Your task to perform on an android device: change notification settings in the gmail app Image 0: 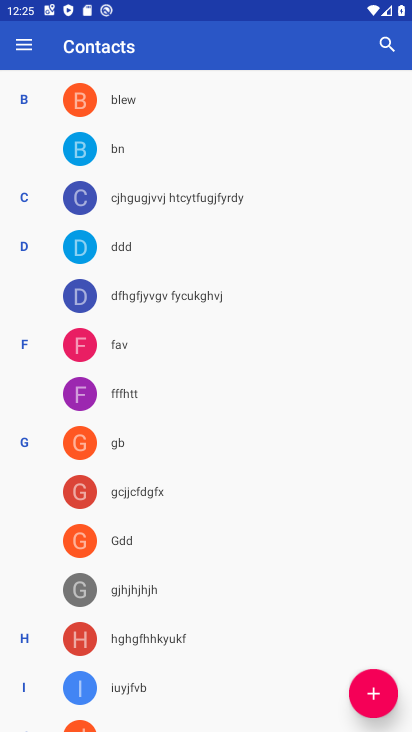
Step 0: press home button
Your task to perform on an android device: change notification settings in the gmail app Image 1: 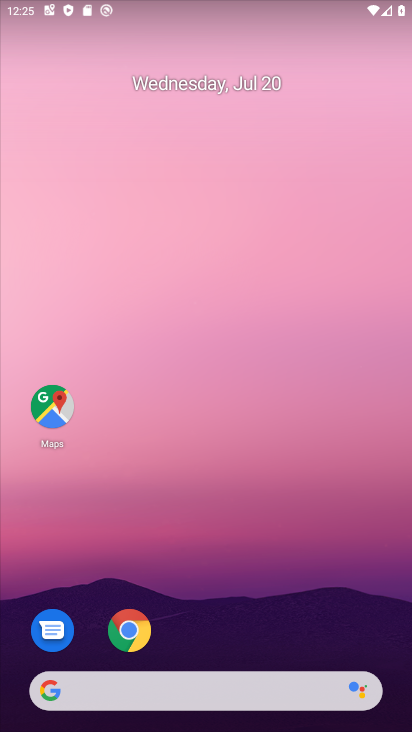
Step 1: drag from (265, 580) to (224, 5)
Your task to perform on an android device: change notification settings in the gmail app Image 2: 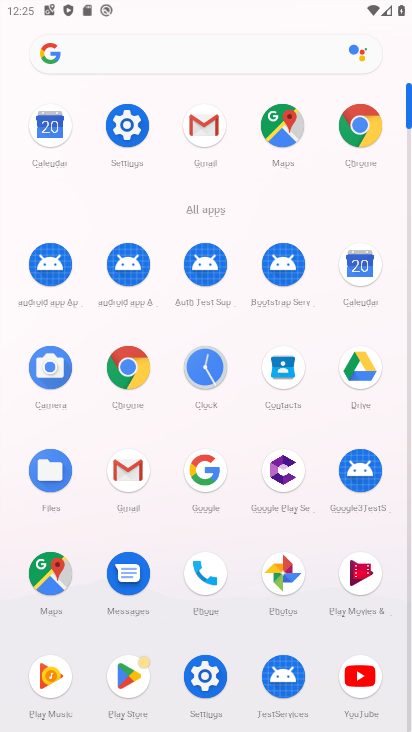
Step 2: click (215, 126)
Your task to perform on an android device: change notification settings in the gmail app Image 3: 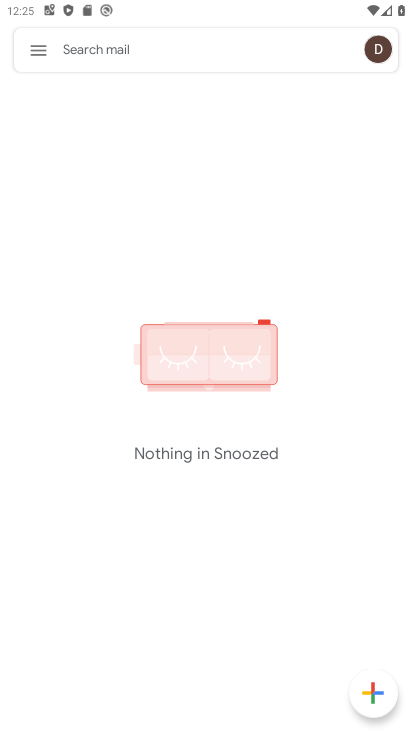
Step 3: click (34, 50)
Your task to perform on an android device: change notification settings in the gmail app Image 4: 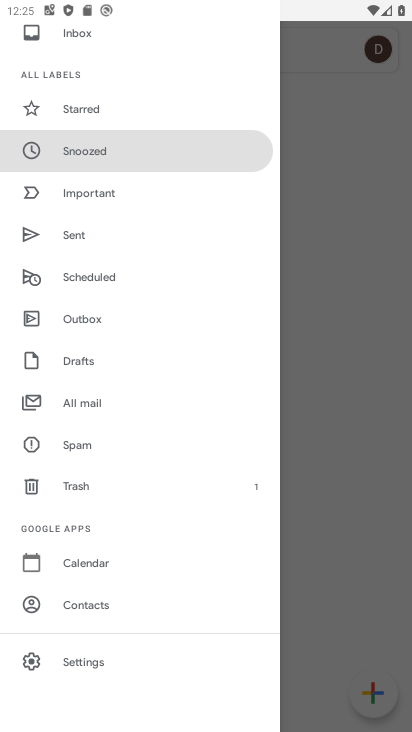
Step 4: click (89, 656)
Your task to perform on an android device: change notification settings in the gmail app Image 5: 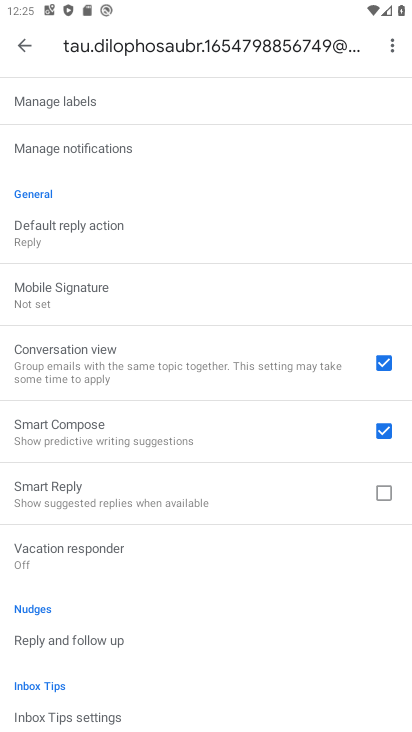
Step 5: click (72, 143)
Your task to perform on an android device: change notification settings in the gmail app Image 6: 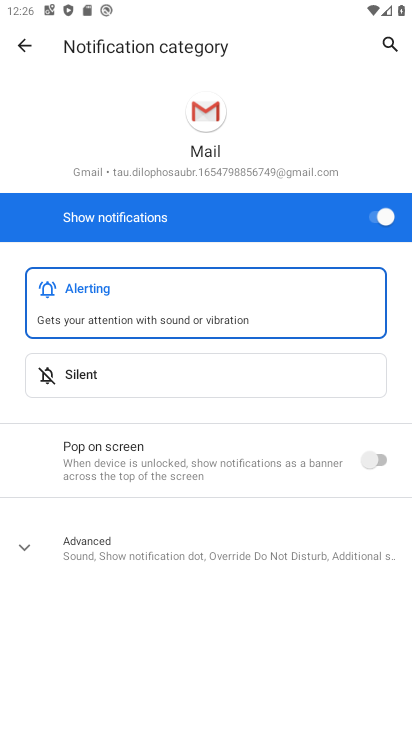
Step 6: click (376, 212)
Your task to perform on an android device: change notification settings in the gmail app Image 7: 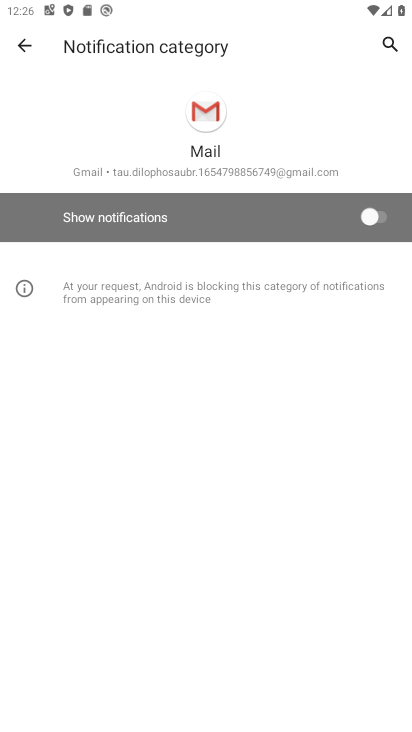
Step 7: task complete